Your task to perform on an android device: toggle location history Image 0: 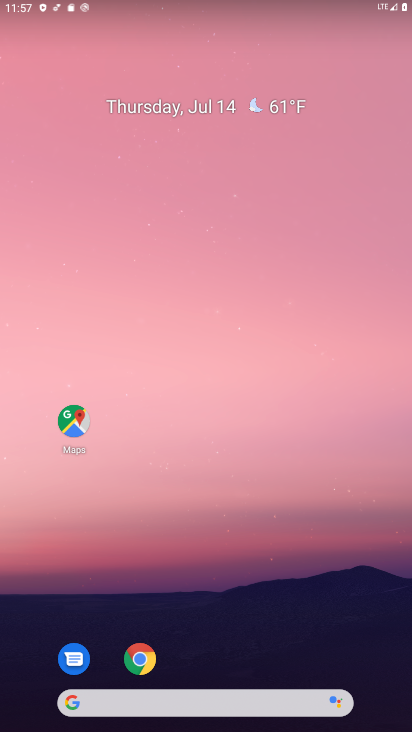
Step 0: drag from (193, 700) to (273, 222)
Your task to perform on an android device: toggle location history Image 1: 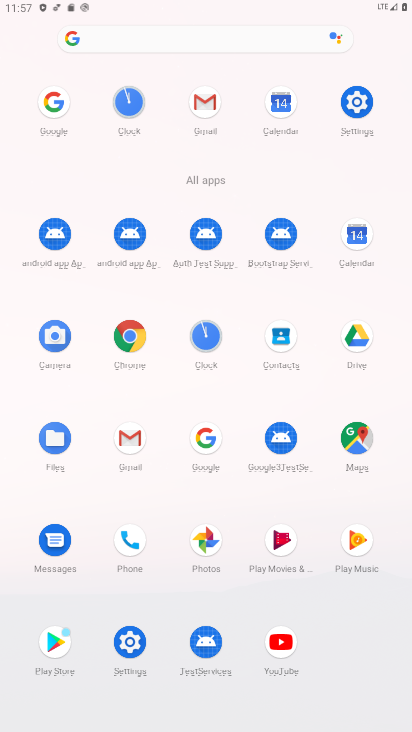
Step 1: click (357, 101)
Your task to perform on an android device: toggle location history Image 2: 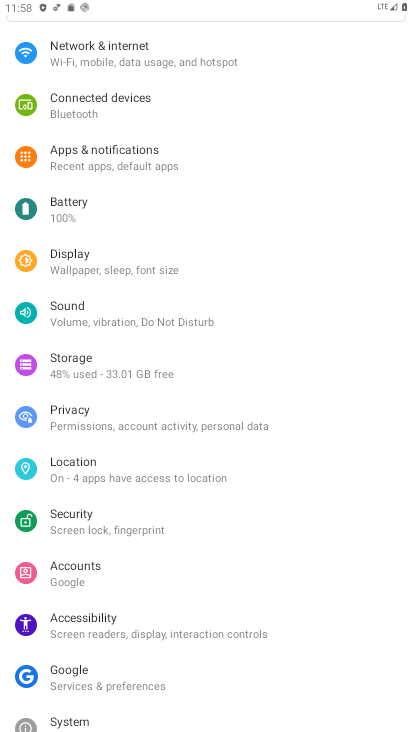
Step 2: click (98, 467)
Your task to perform on an android device: toggle location history Image 3: 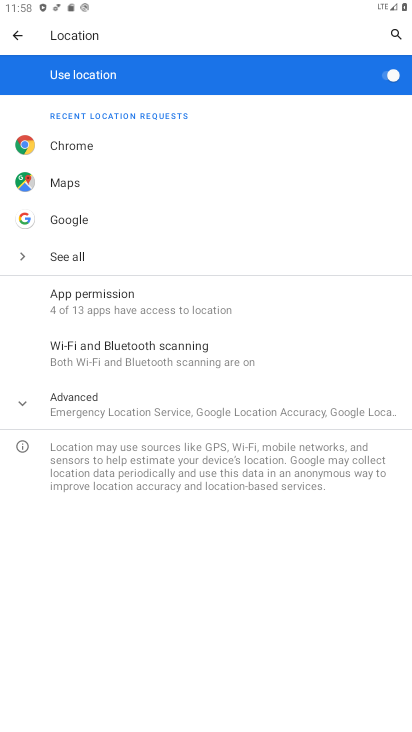
Step 3: click (102, 401)
Your task to perform on an android device: toggle location history Image 4: 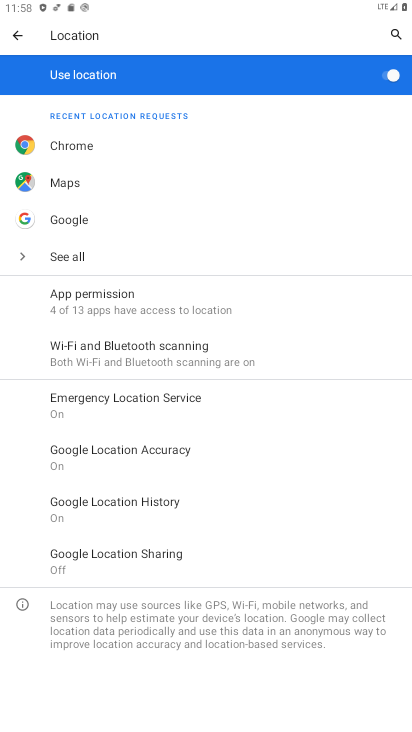
Step 4: click (110, 503)
Your task to perform on an android device: toggle location history Image 5: 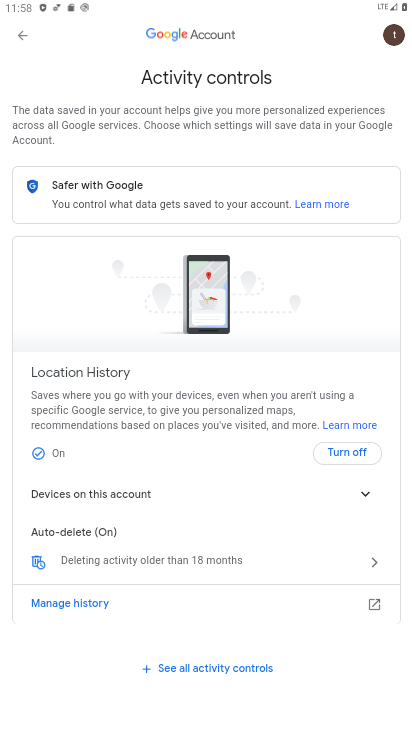
Step 5: click (345, 454)
Your task to perform on an android device: toggle location history Image 6: 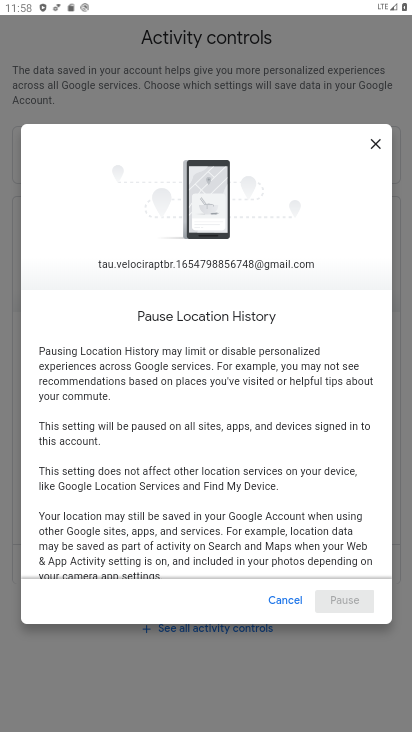
Step 6: drag from (283, 521) to (322, 361)
Your task to perform on an android device: toggle location history Image 7: 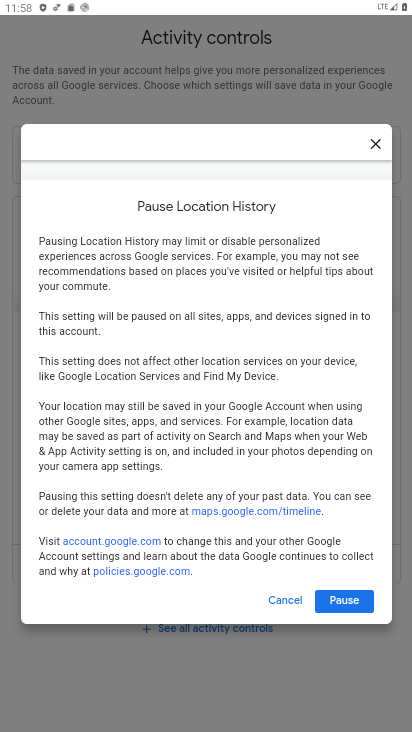
Step 7: click (351, 601)
Your task to perform on an android device: toggle location history Image 8: 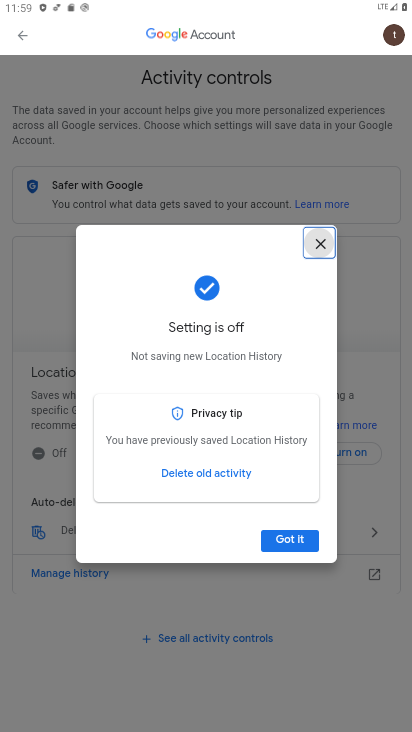
Step 8: click (295, 535)
Your task to perform on an android device: toggle location history Image 9: 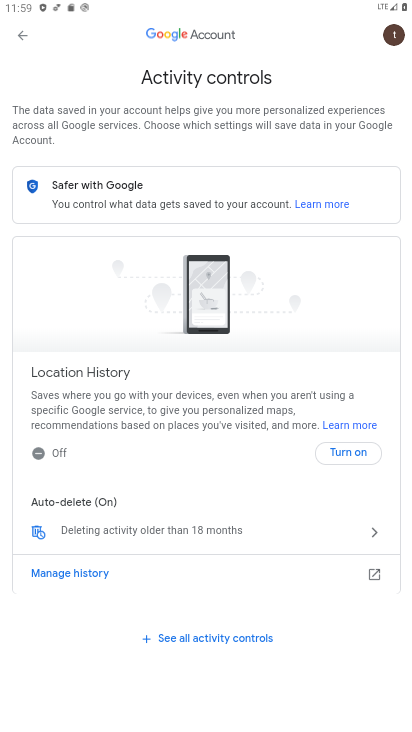
Step 9: task complete